Your task to perform on an android device: toggle sleep mode Image 0: 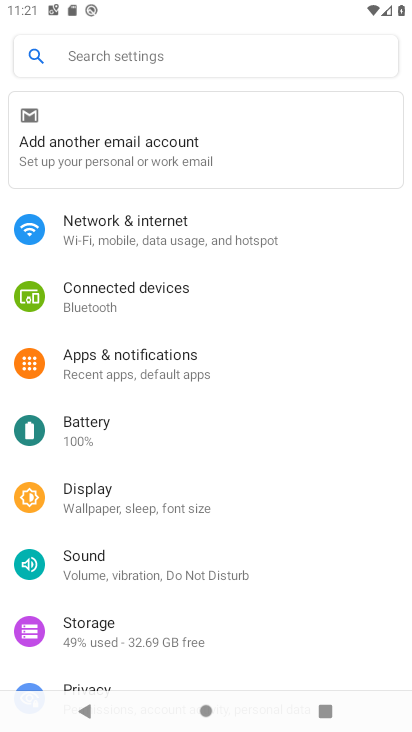
Step 0: press back button
Your task to perform on an android device: toggle sleep mode Image 1: 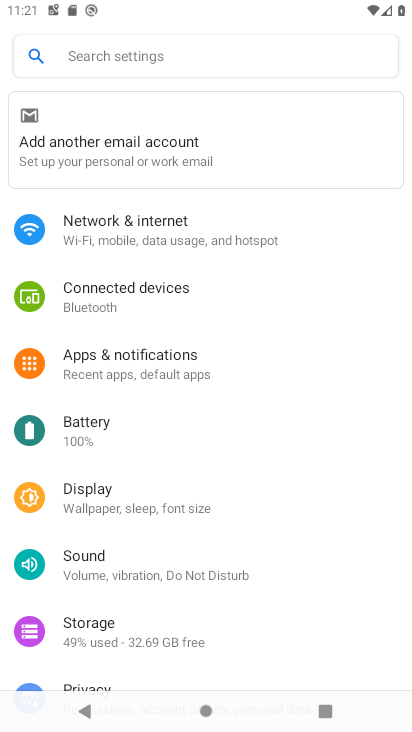
Step 1: press back button
Your task to perform on an android device: toggle sleep mode Image 2: 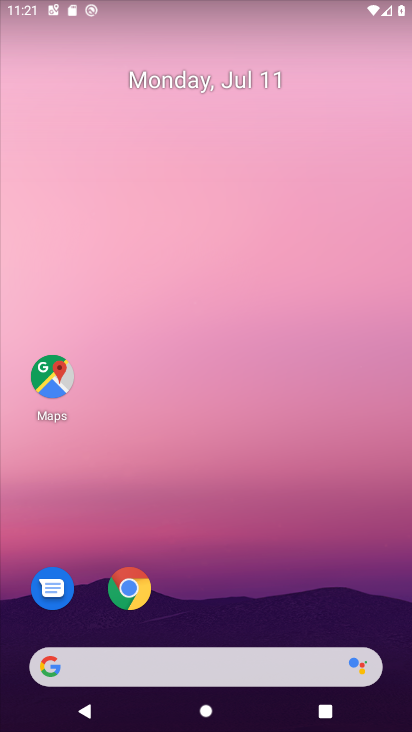
Step 2: drag from (228, 299) to (223, 230)
Your task to perform on an android device: toggle sleep mode Image 3: 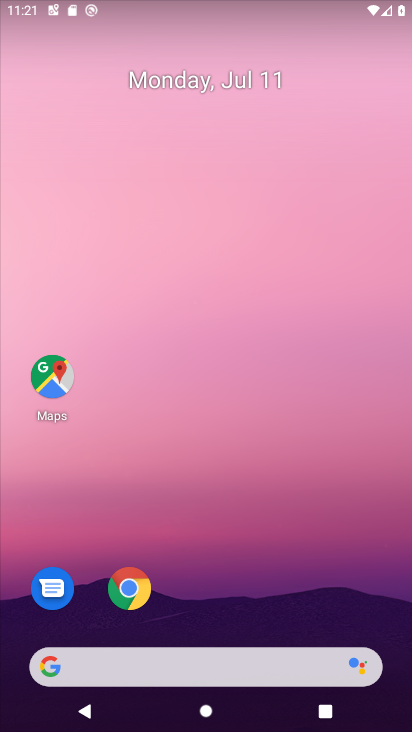
Step 3: drag from (240, 521) to (181, 51)
Your task to perform on an android device: toggle sleep mode Image 4: 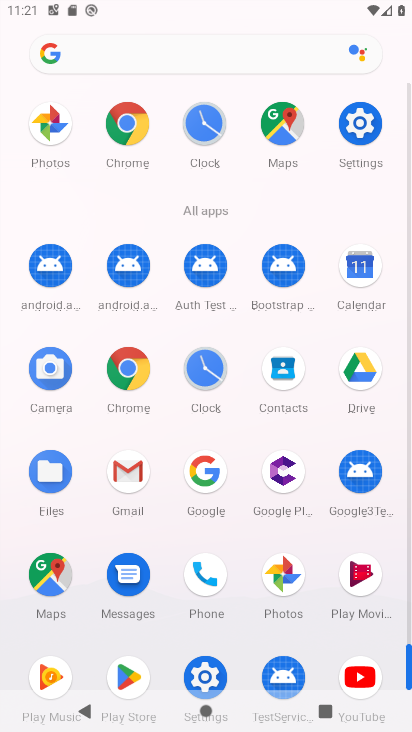
Step 4: click (367, 123)
Your task to perform on an android device: toggle sleep mode Image 5: 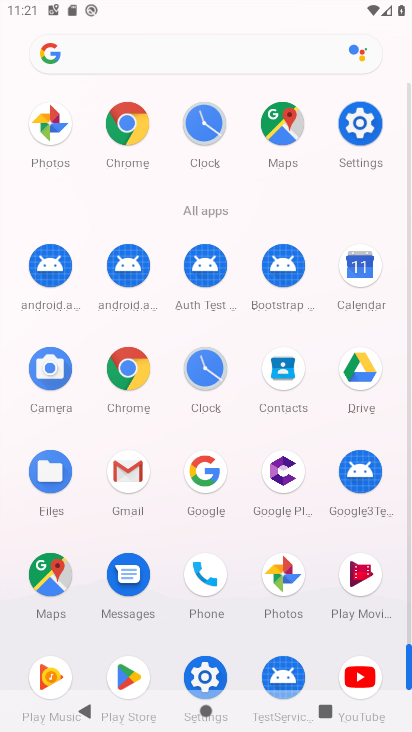
Step 5: click (368, 118)
Your task to perform on an android device: toggle sleep mode Image 6: 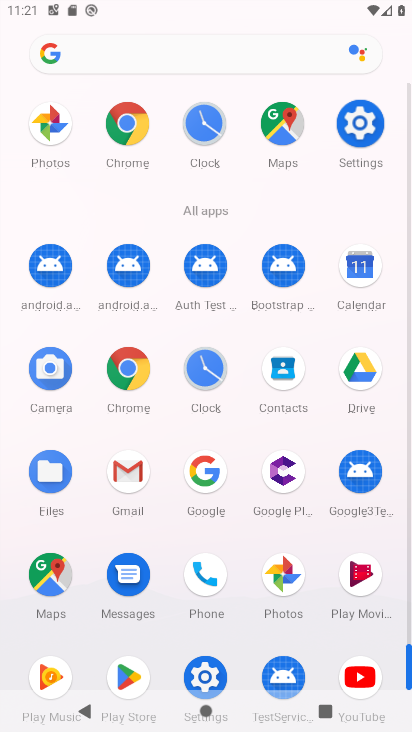
Step 6: click (368, 118)
Your task to perform on an android device: toggle sleep mode Image 7: 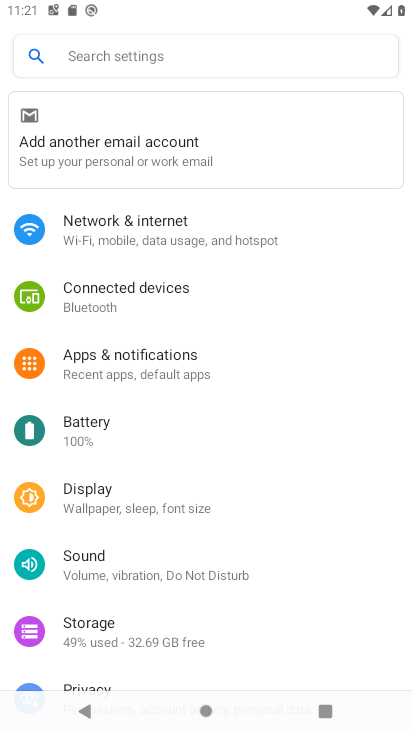
Step 7: drag from (172, 545) to (250, 280)
Your task to perform on an android device: toggle sleep mode Image 8: 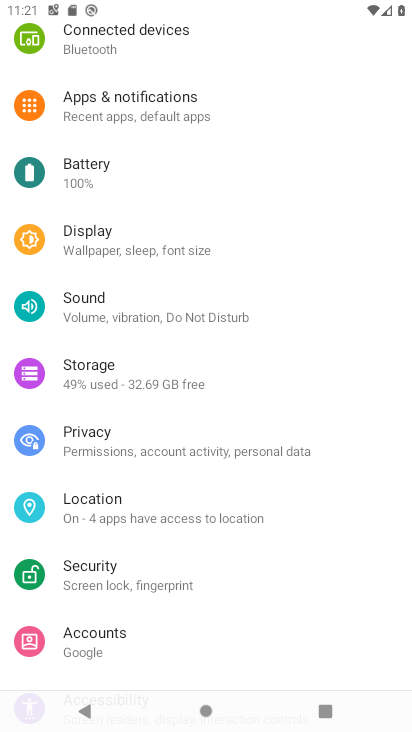
Step 8: drag from (221, 370) to (201, 237)
Your task to perform on an android device: toggle sleep mode Image 9: 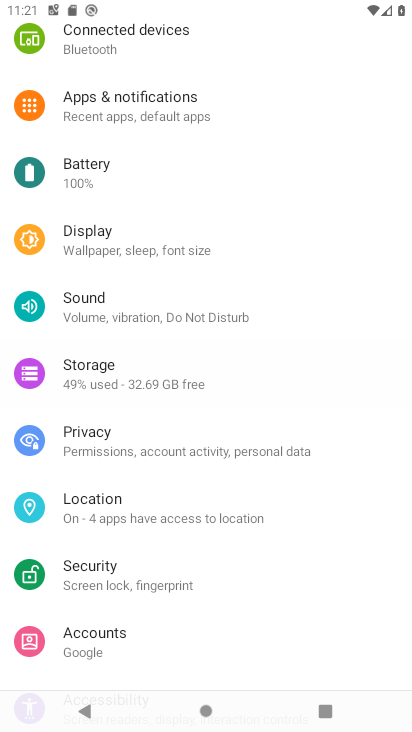
Step 9: drag from (156, 384) to (140, 320)
Your task to perform on an android device: toggle sleep mode Image 10: 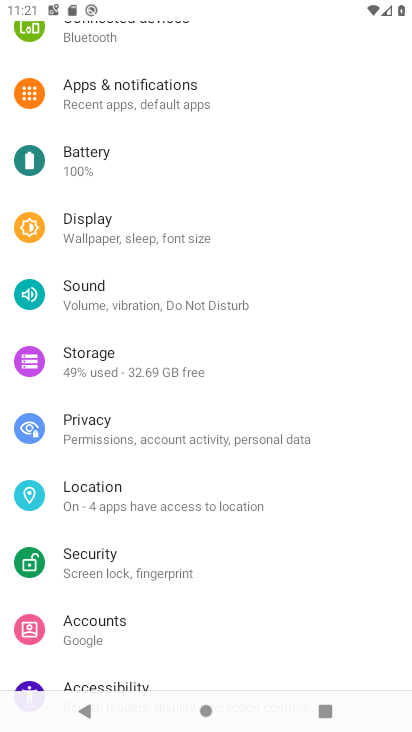
Step 10: drag from (107, 405) to (96, 349)
Your task to perform on an android device: toggle sleep mode Image 11: 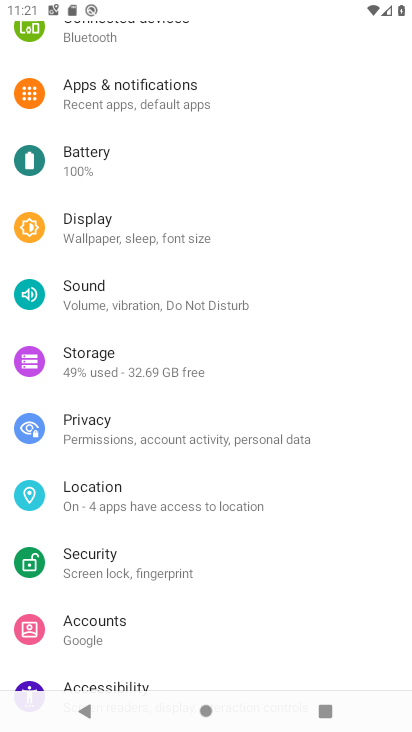
Step 11: drag from (113, 428) to (35, 165)
Your task to perform on an android device: toggle sleep mode Image 12: 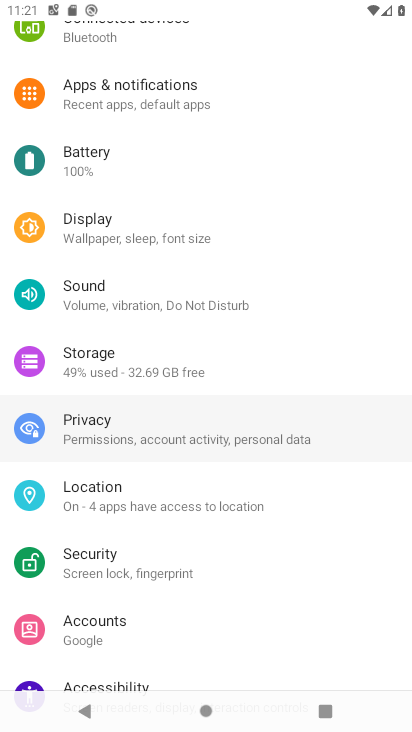
Step 12: drag from (128, 427) to (108, 280)
Your task to perform on an android device: toggle sleep mode Image 13: 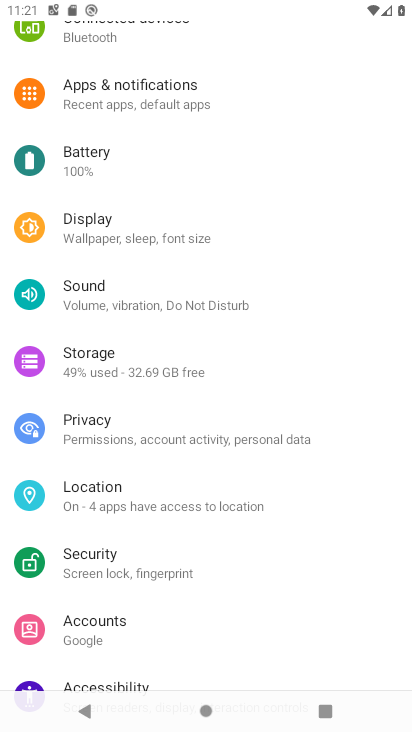
Step 13: click (87, 239)
Your task to perform on an android device: toggle sleep mode Image 14: 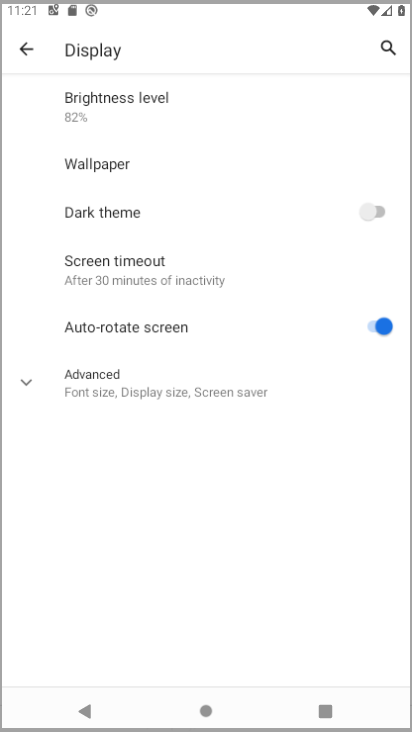
Step 14: click (109, 233)
Your task to perform on an android device: toggle sleep mode Image 15: 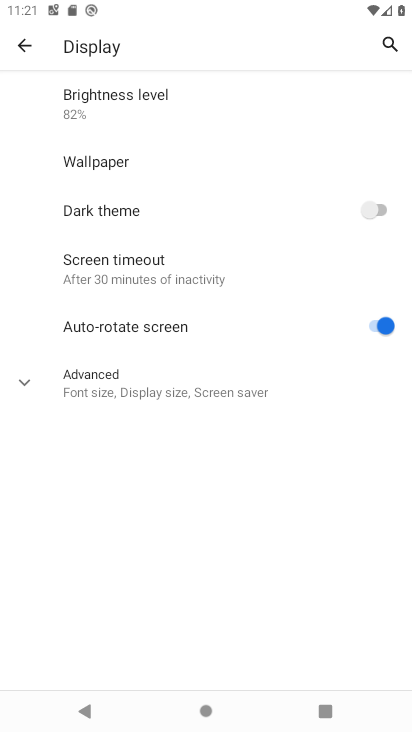
Step 15: click (90, 225)
Your task to perform on an android device: toggle sleep mode Image 16: 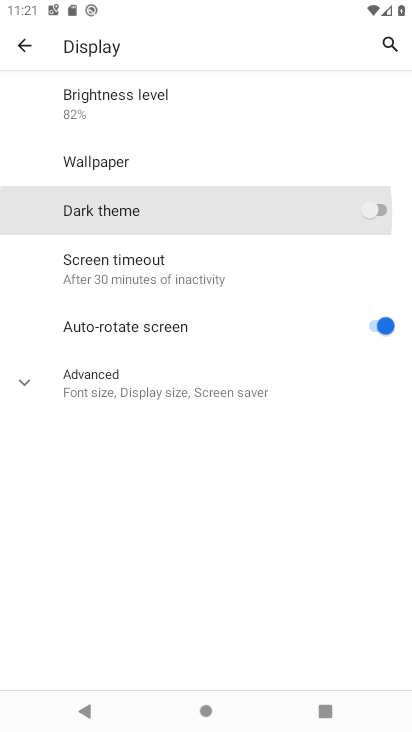
Step 16: click (96, 226)
Your task to perform on an android device: toggle sleep mode Image 17: 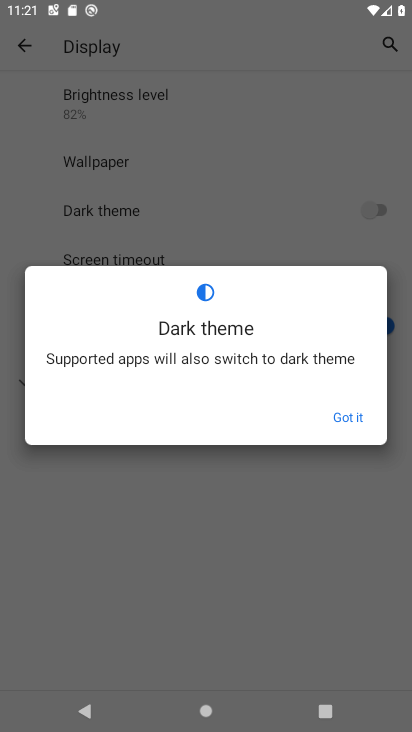
Step 17: click (349, 410)
Your task to perform on an android device: toggle sleep mode Image 18: 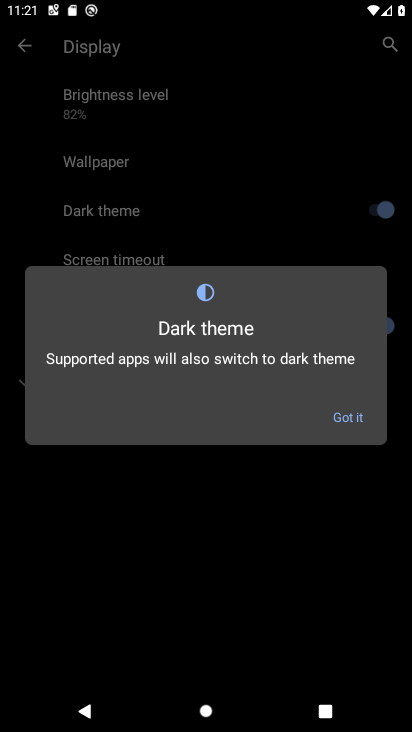
Step 18: click (345, 412)
Your task to perform on an android device: toggle sleep mode Image 19: 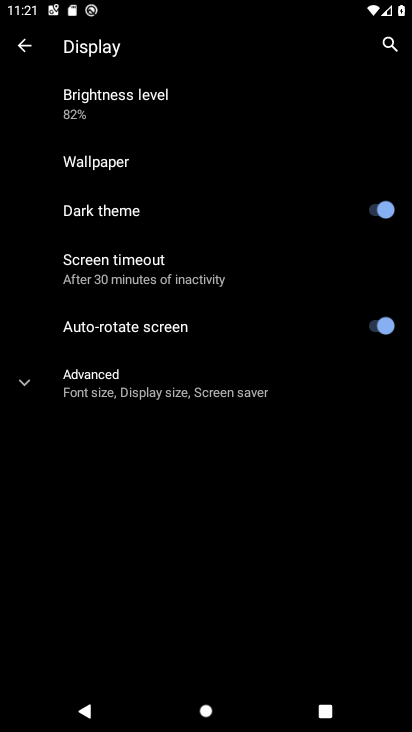
Step 19: click (348, 413)
Your task to perform on an android device: toggle sleep mode Image 20: 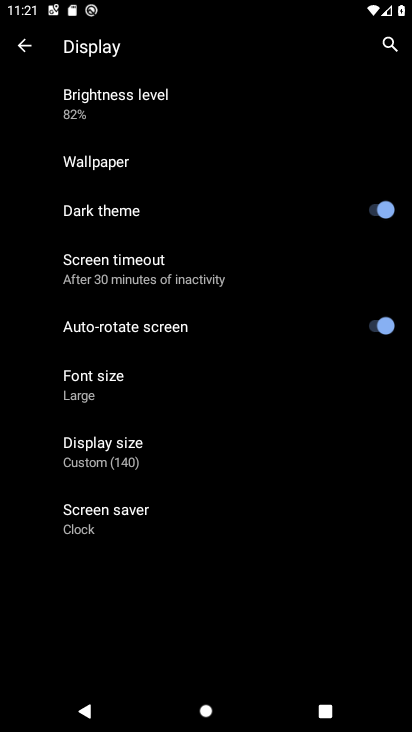
Step 20: click (388, 206)
Your task to perform on an android device: toggle sleep mode Image 21: 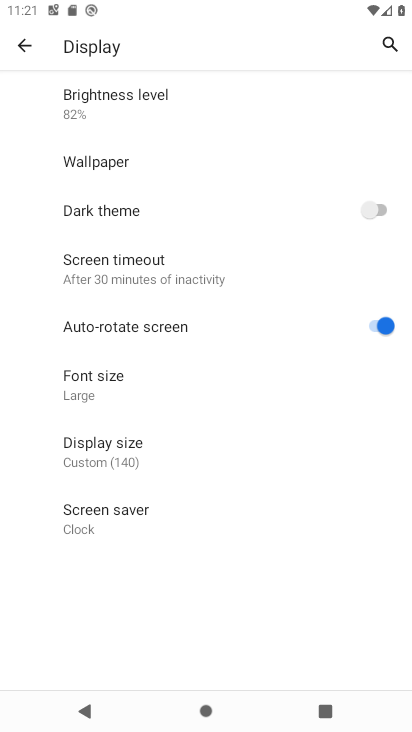
Step 21: click (389, 210)
Your task to perform on an android device: toggle sleep mode Image 22: 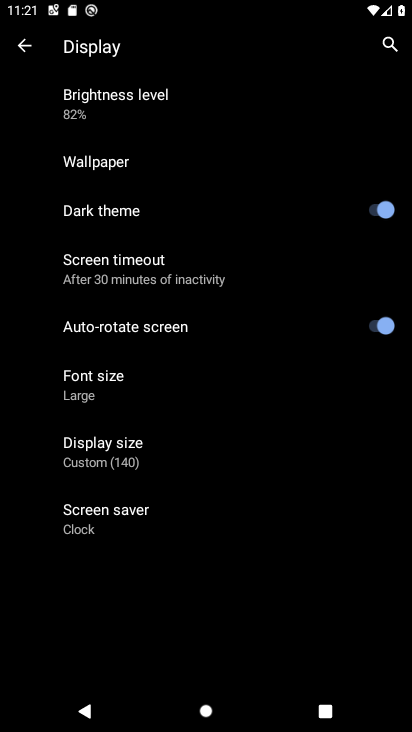
Step 22: click (386, 208)
Your task to perform on an android device: toggle sleep mode Image 23: 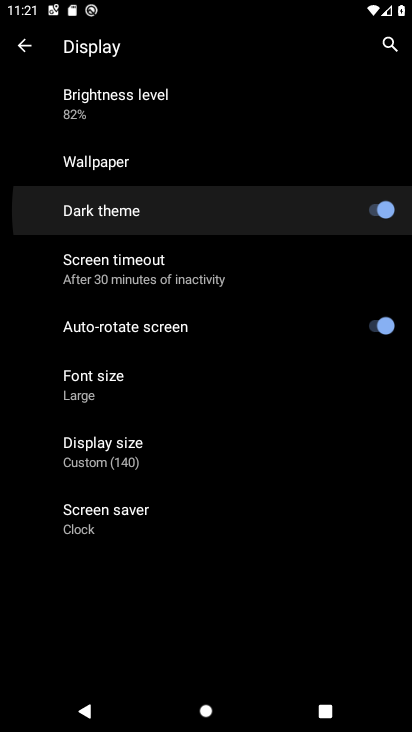
Step 23: click (386, 211)
Your task to perform on an android device: toggle sleep mode Image 24: 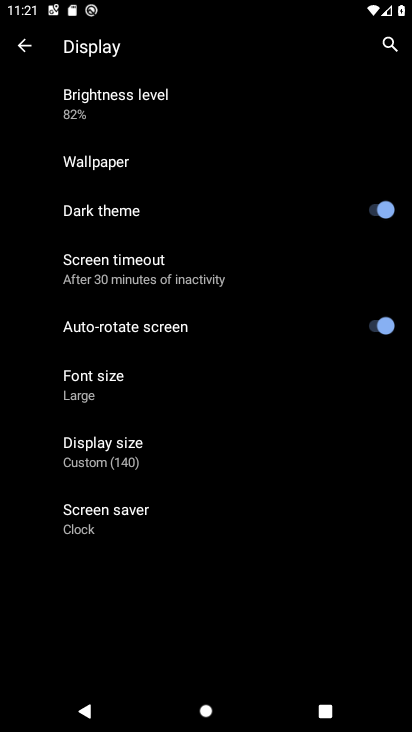
Step 24: click (109, 275)
Your task to perform on an android device: toggle sleep mode Image 25: 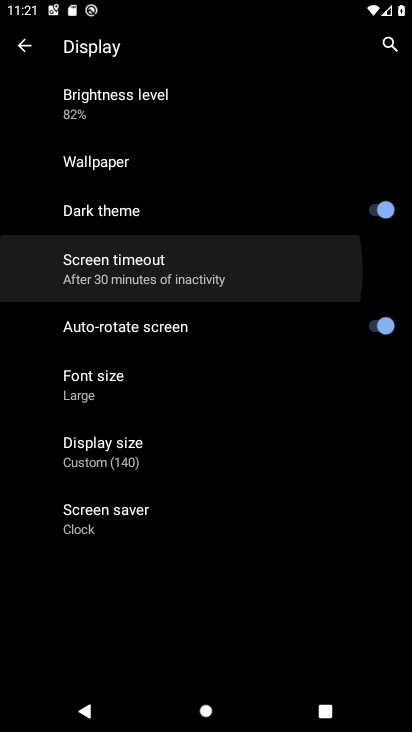
Step 25: click (110, 274)
Your task to perform on an android device: toggle sleep mode Image 26: 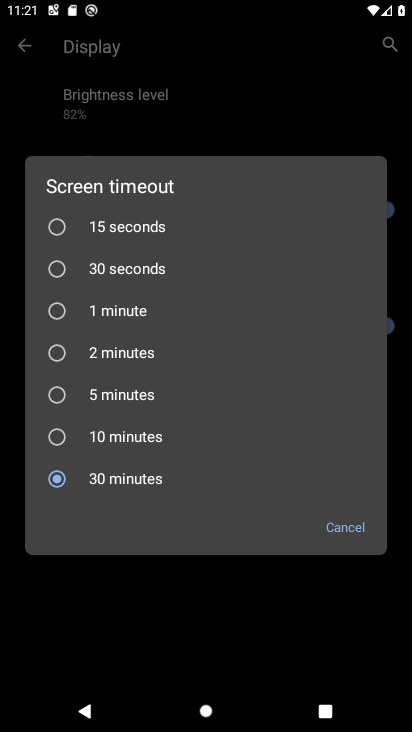
Step 26: click (57, 267)
Your task to perform on an android device: toggle sleep mode Image 27: 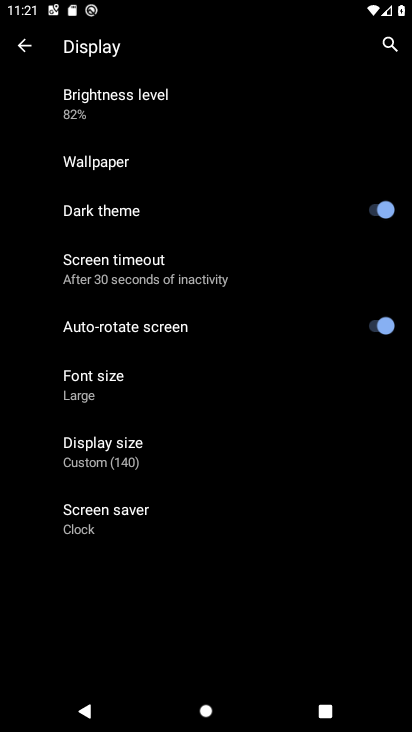
Step 27: click (382, 204)
Your task to perform on an android device: toggle sleep mode Image 28: 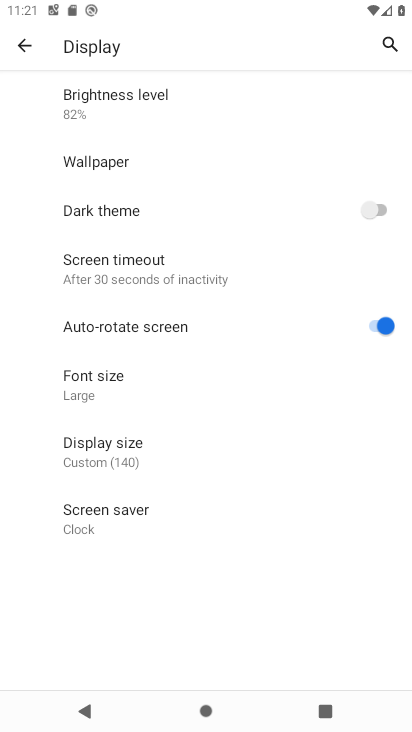
Step 28: task complete